Your task to perform on an android device: turn on showing notifications on the lock screen Image 0: 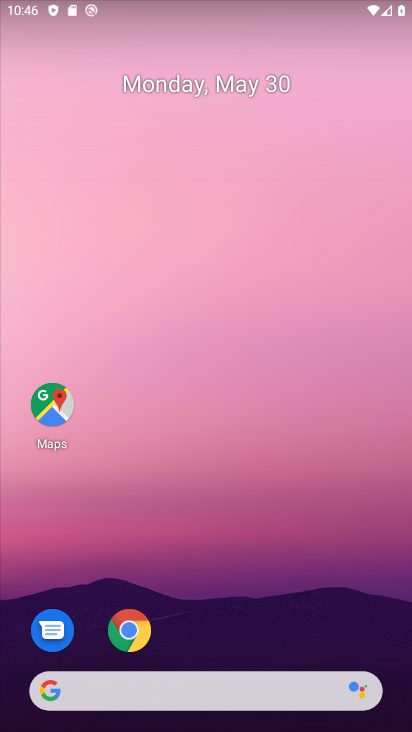
Step 0: drag from (196, 277) to (253, 69)
Your task to perform on an android device: turn on showing notifications on the lock screen Image 1: 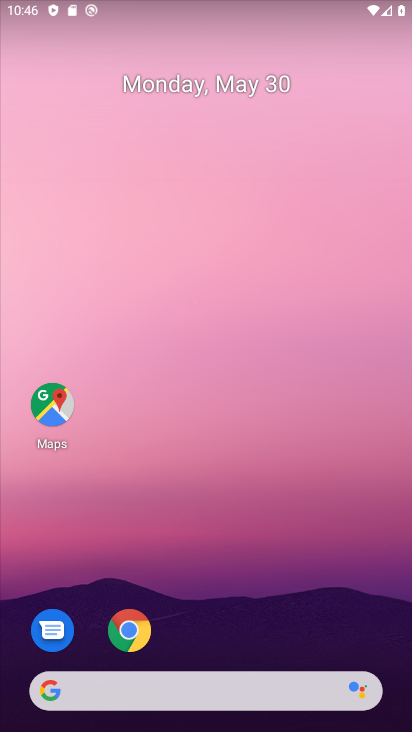
Step 1: drag from (212, 641) to (250, 230)
Your task to perform on an android device: turn on showing notifications on the lock screen Image 2: 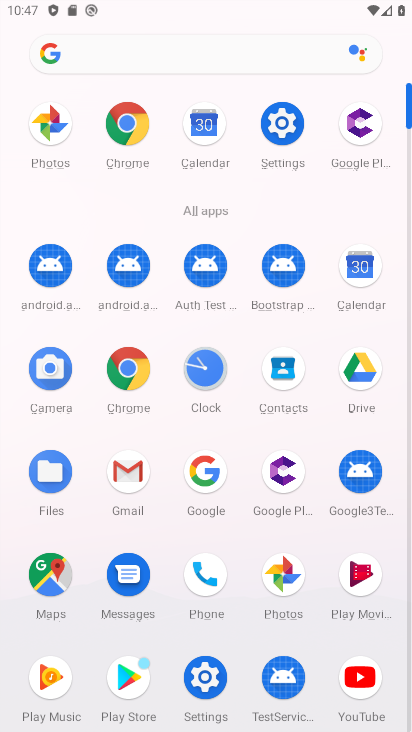
Step 2: click (282, 123)
Your task to perform on an android device: turn on showing notifications on the lock screen Image 3: 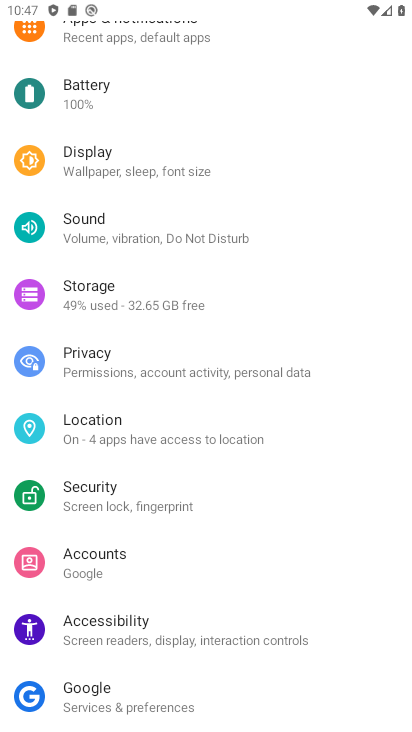
Step 3: click (158, 35)
Your task to perform on an android device: turn on showing notifications on the lock screen Image 4: 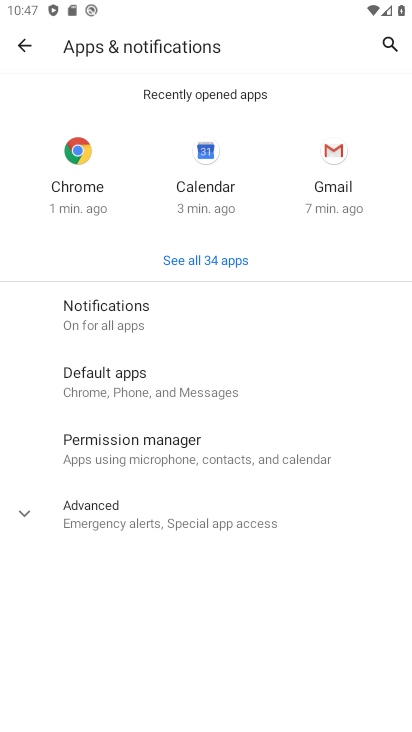
Step 4: click (142, 316)
Your task to perform on an android device: turn on showing notifications on the lock screen Image 5: 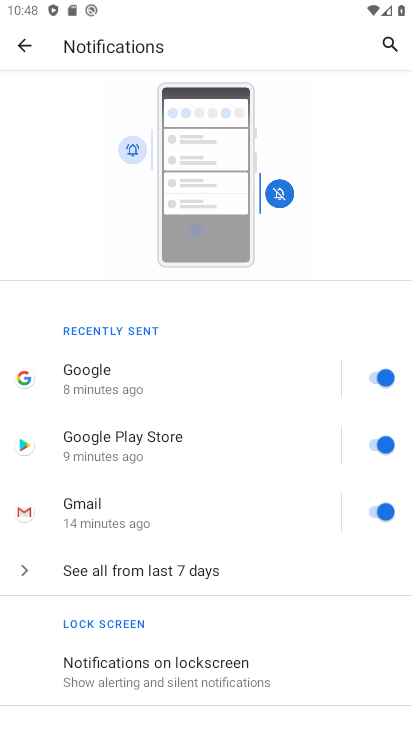
Step 5: task complete